Your task to perform on an android device: toggle javascript in the chrome app Image 0: 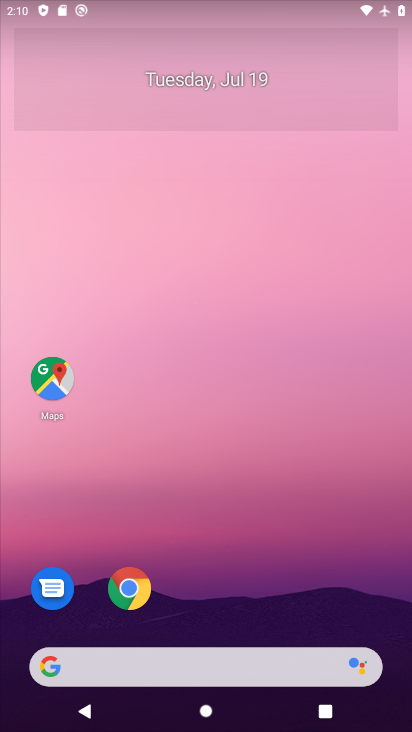
Step 0: press home button
Your task to perform on an android device: toggle javascript in the chrome app Image 1: 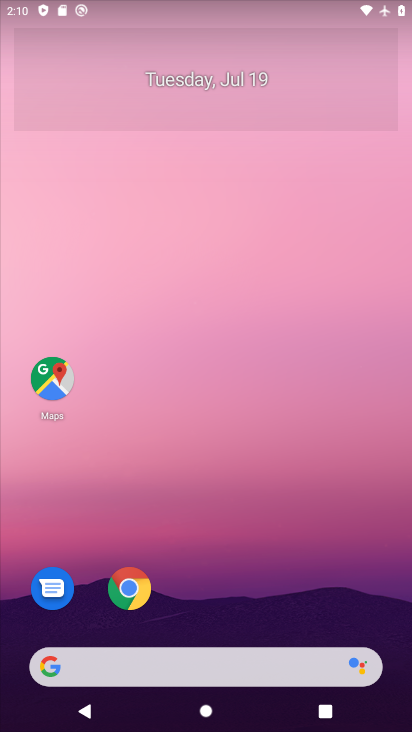
Step 1: drag from (220, 627) to (254, 0)
Your task to perform on an android device: toggle javascript in the chrome app Image 2: 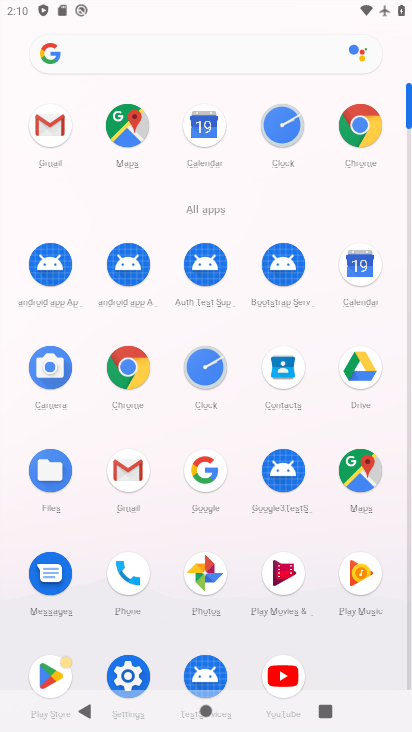
Step 2: click (358, 125)
Your task to perform on an android device: toggle javascript in the chrome app Image 3: 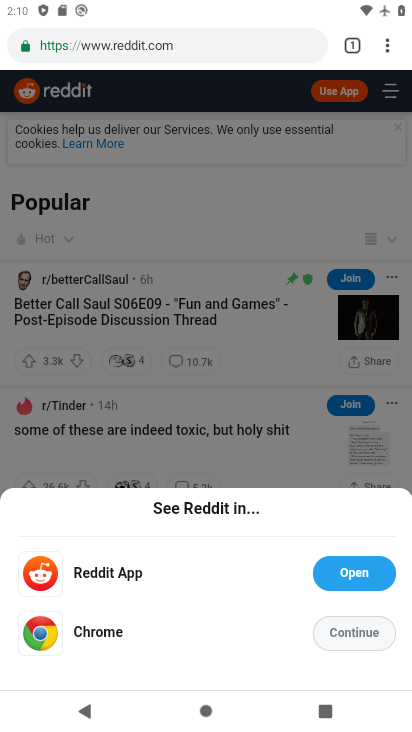
Step 3: drag from (392, 52) to (232, 510)
Your task to perform on an android device: toggle javascript in the chrome app Image 4: 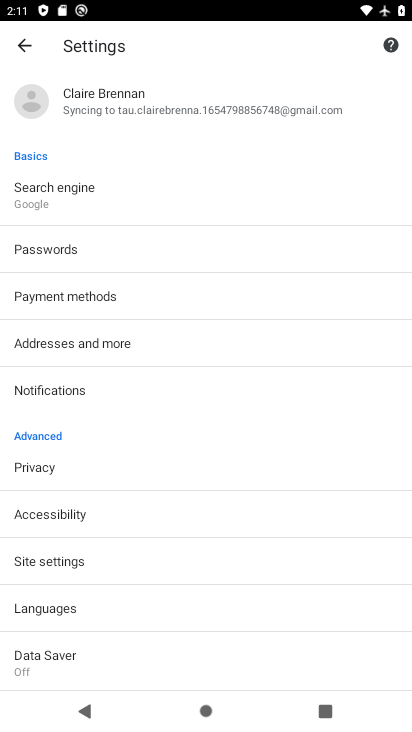
Step 4: click (32, 574)
Your task to perform on an android device: toggle javascript in the chrome app Image 5: 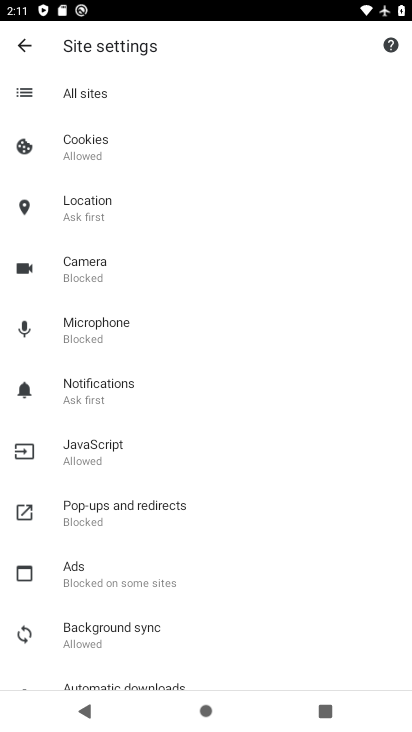
Step 5: click (110, 452)
Your task to perform on an android device: toggle javascript in the chrome app Image 6: 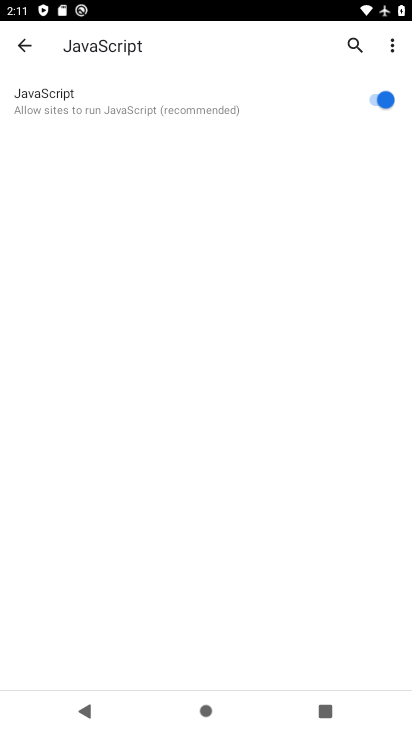
Step 6: click (387, 105)
Your task to perform on an android device: toggle javascript in the chrome app Image 7: 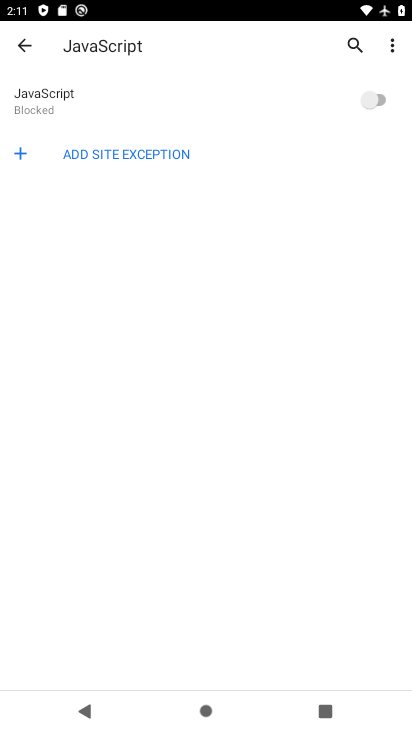
Step 7: click (373, 96)
Your task to perform on an android device: toggle javascript in the chrome app Image 8: 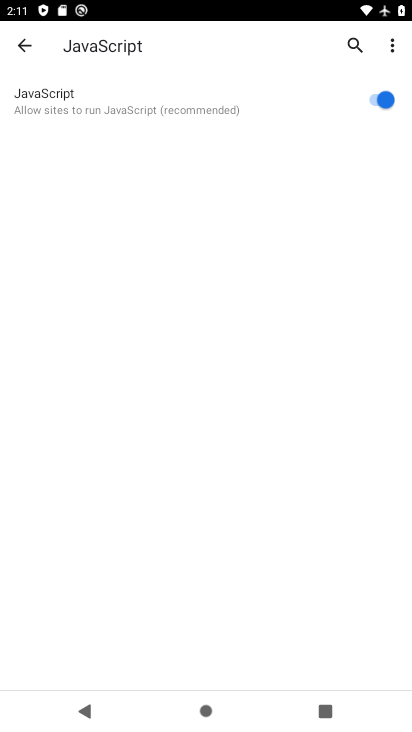
Step 8: task complete